Your task to perform on an android device: Open the map Image 0: 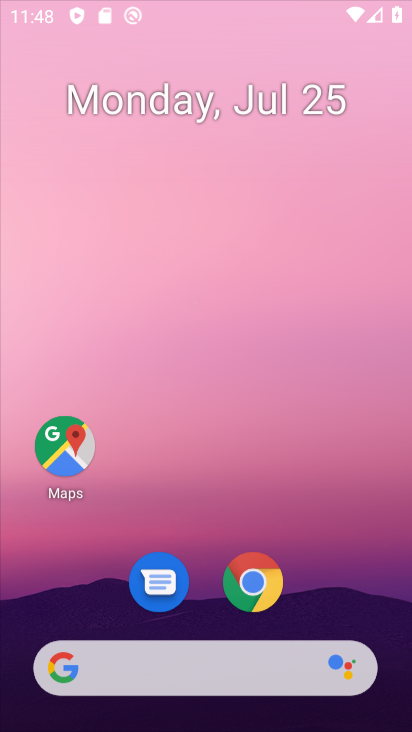
Step 0: click (201, 709)
Your task to perform on an android device: Open the map Image 1: 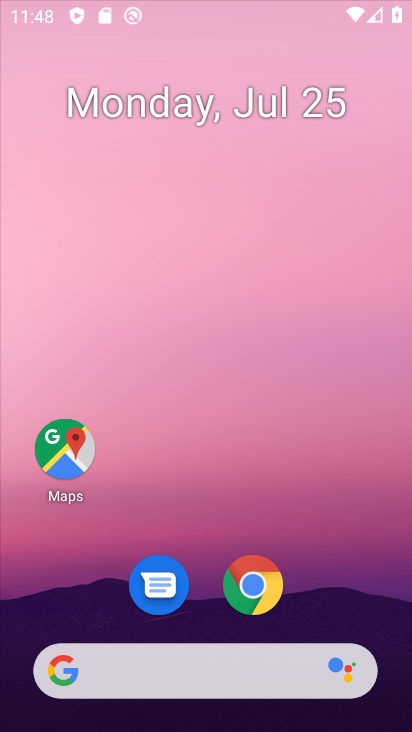
Step 1: click (201, 696)
Your task to perform on an android device: Open the map Image 2: 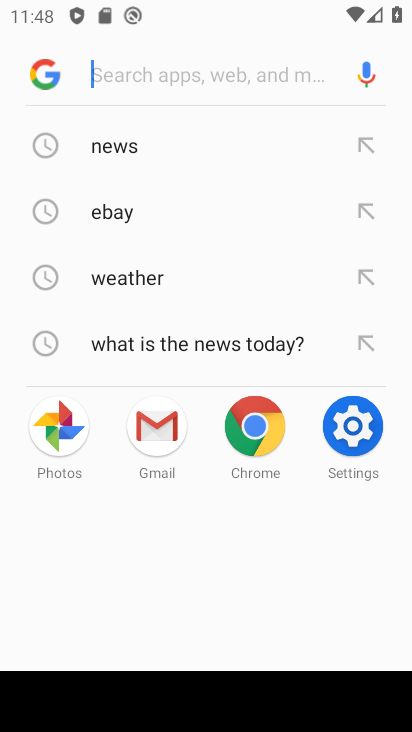
Step 2: press home button
Your task to perform on an android device: Open the map Image 3: 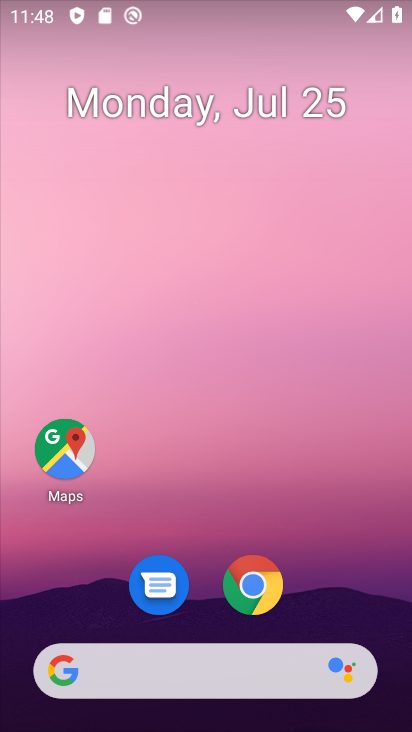
Step 3: click (64, 455)
Your task to perform on an android device: Open the map Image 4: 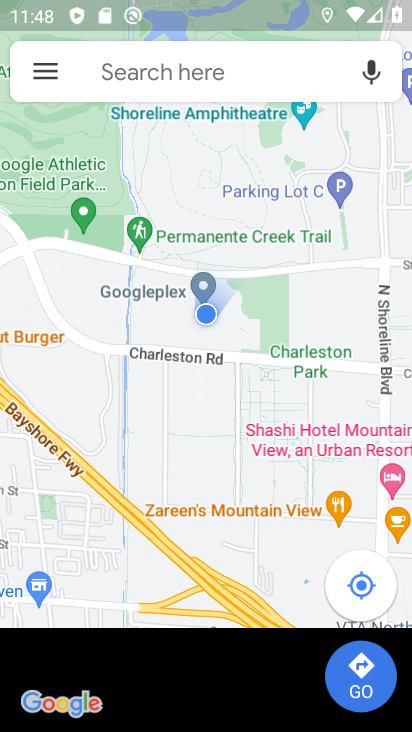
Step 4: task complete